Your task to perform on an android device: View the shopping cart on target.com. Image 0: 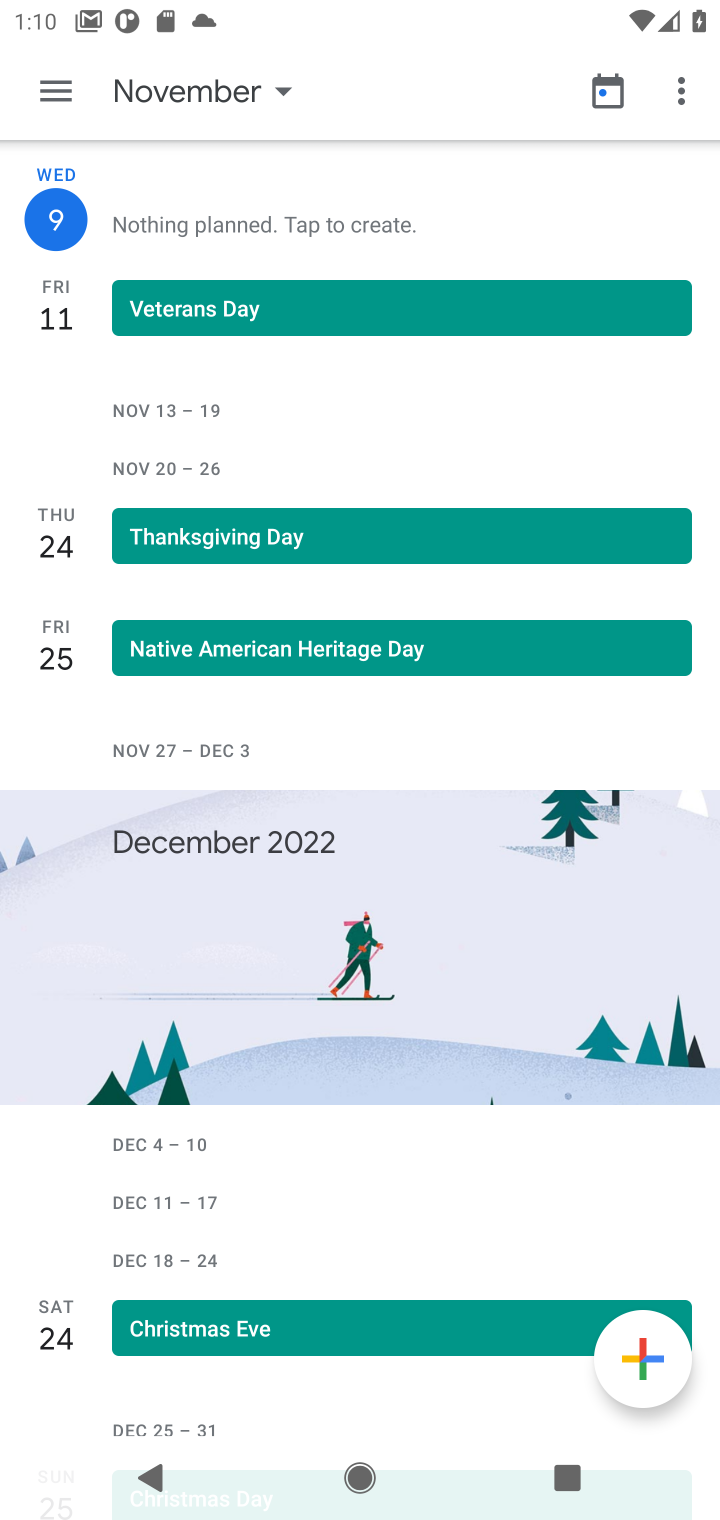
Step 0: press home button
Your task to perform on an android device: View the shopping cart on target.com. Image 1: 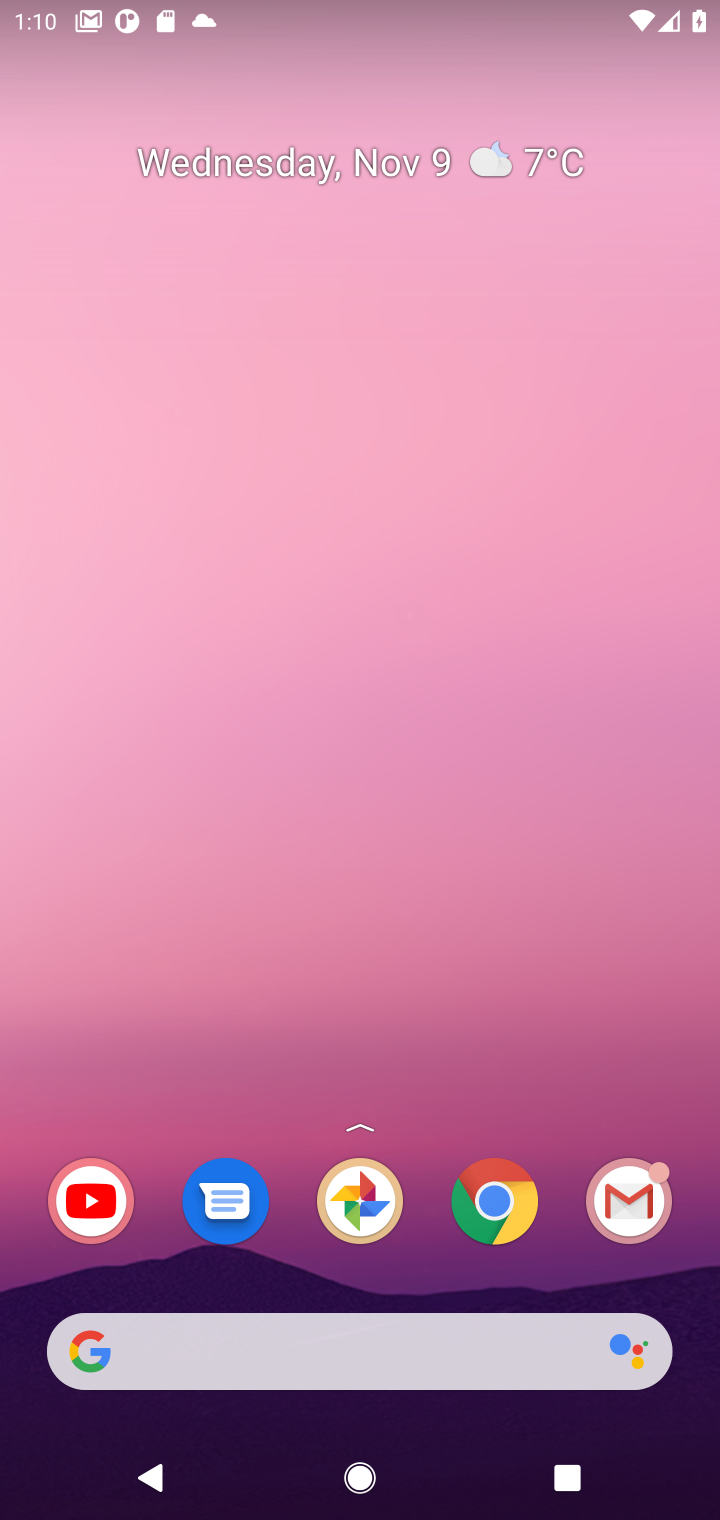
Step 1: click (471, 1356)
Your task to perform on an android device: View the shopping cart on target.com. Image 2: 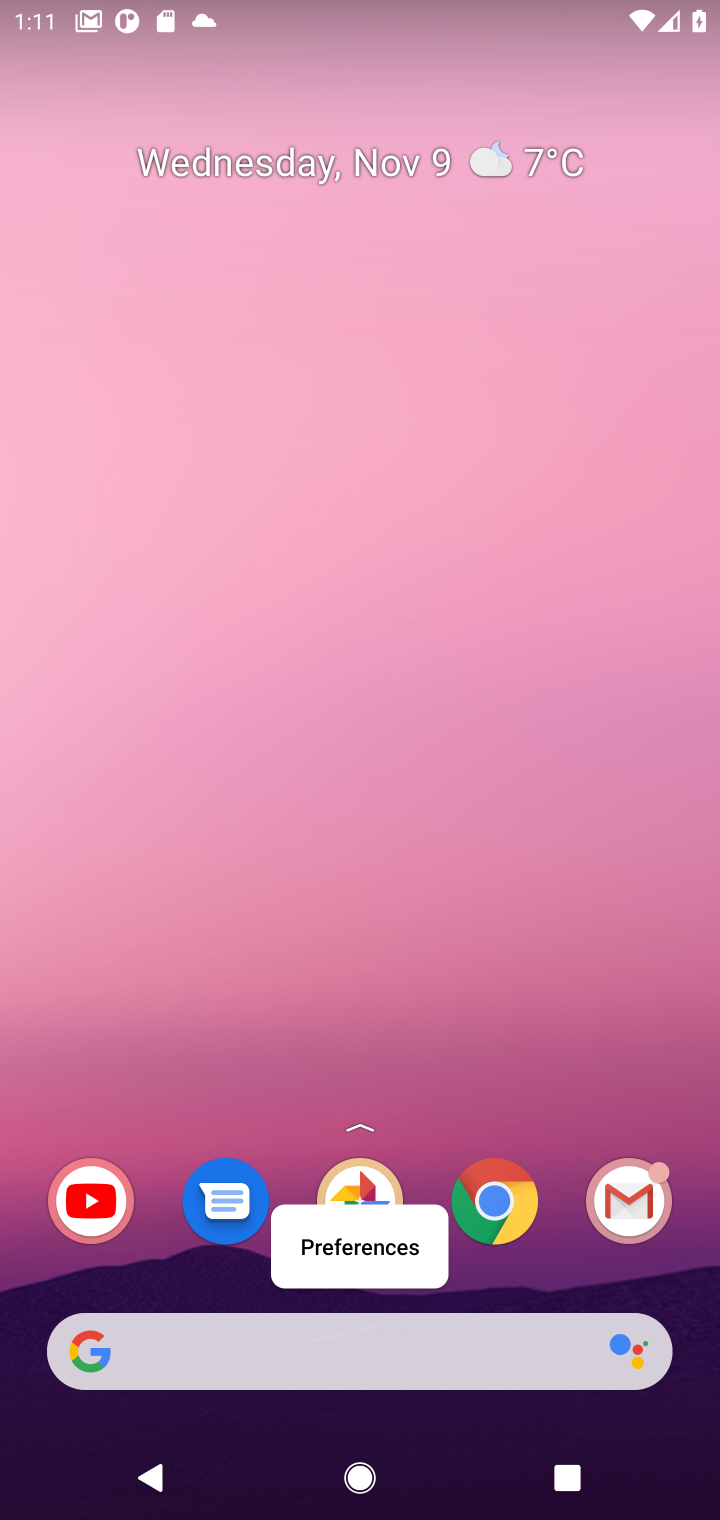
Step 2: click (376, 1356)
Your task to perform on an android device: View the shopping cart on target.com. Image 3: 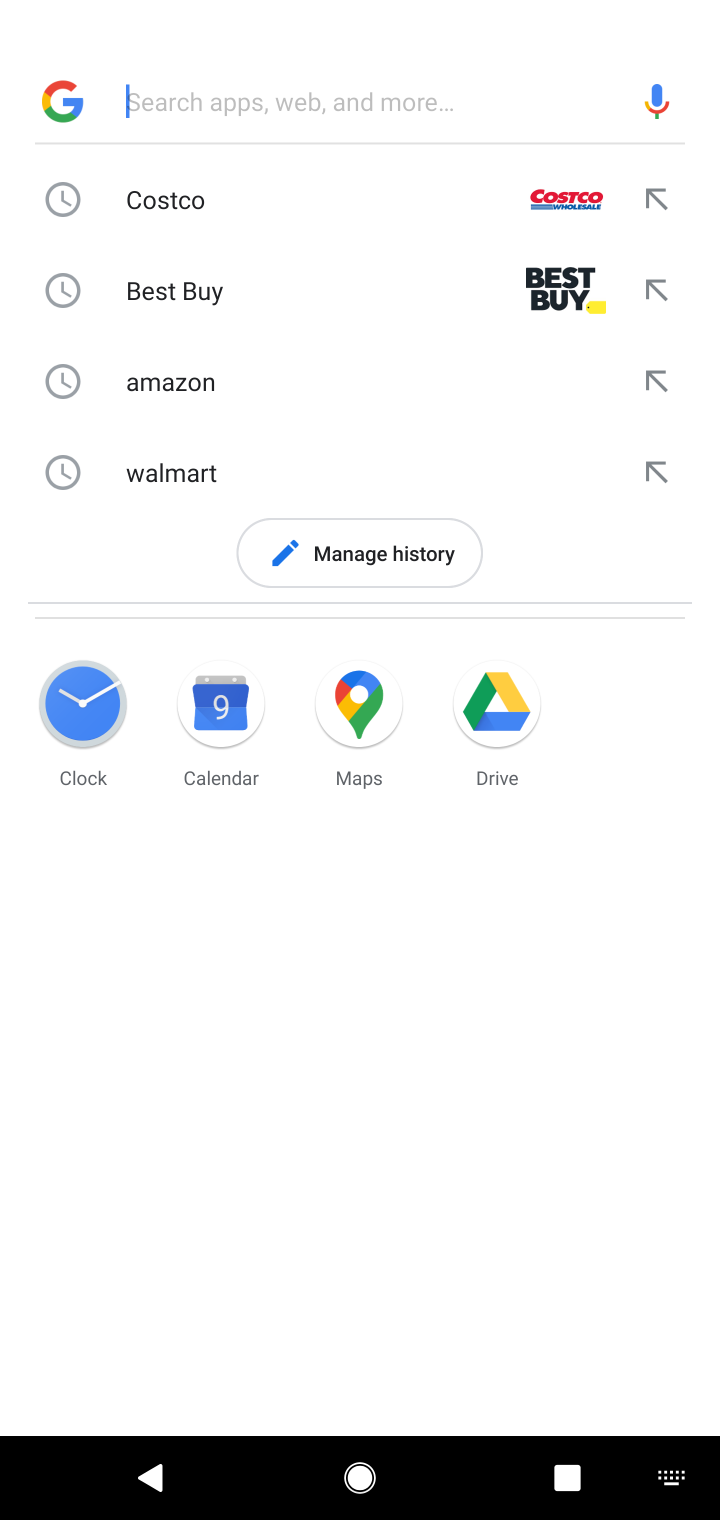
Step 3: type "target.com."
Your task to perform on an android device: View the shopping cart on target.com. Image 4: 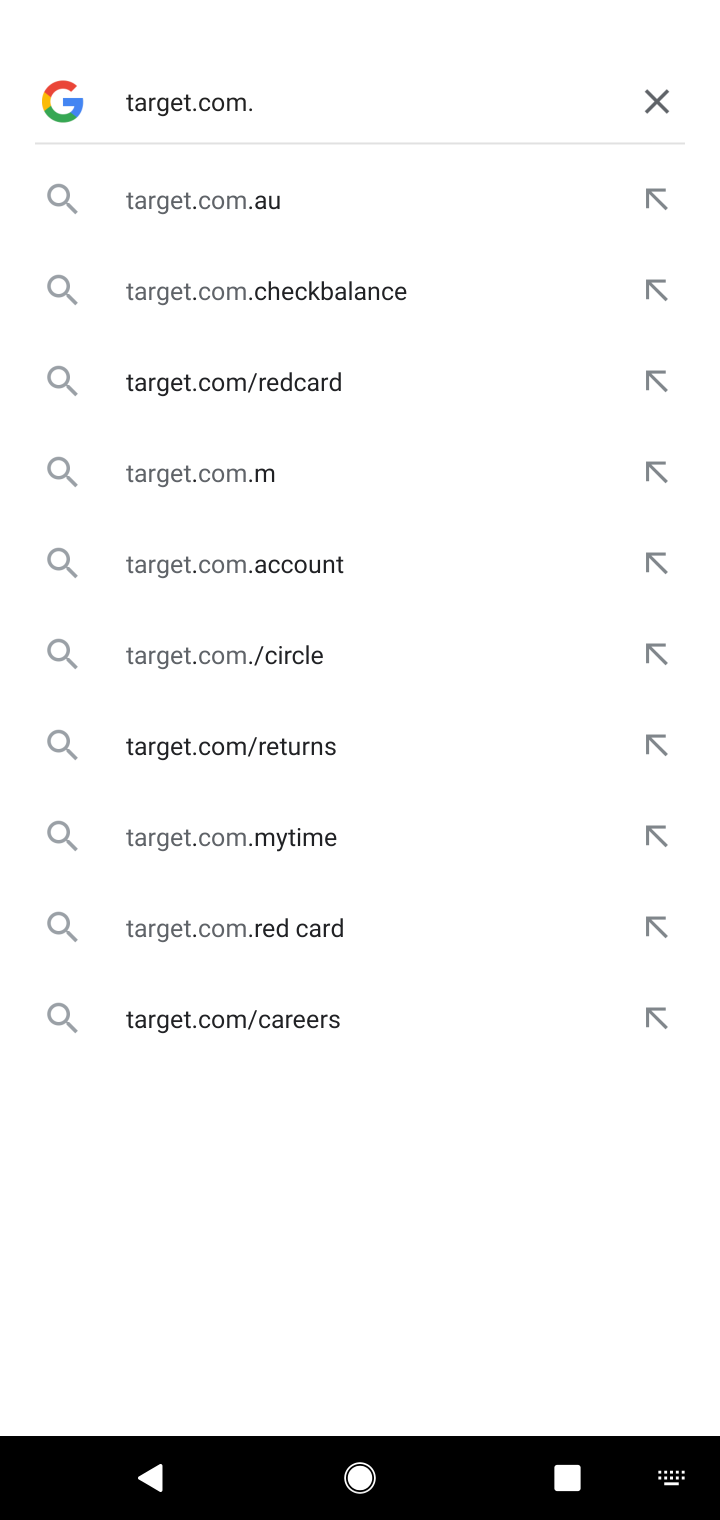
Step 4: click (201, 464)
Your task to perform on an android device: View the shopping cart on target.com. Image 5: 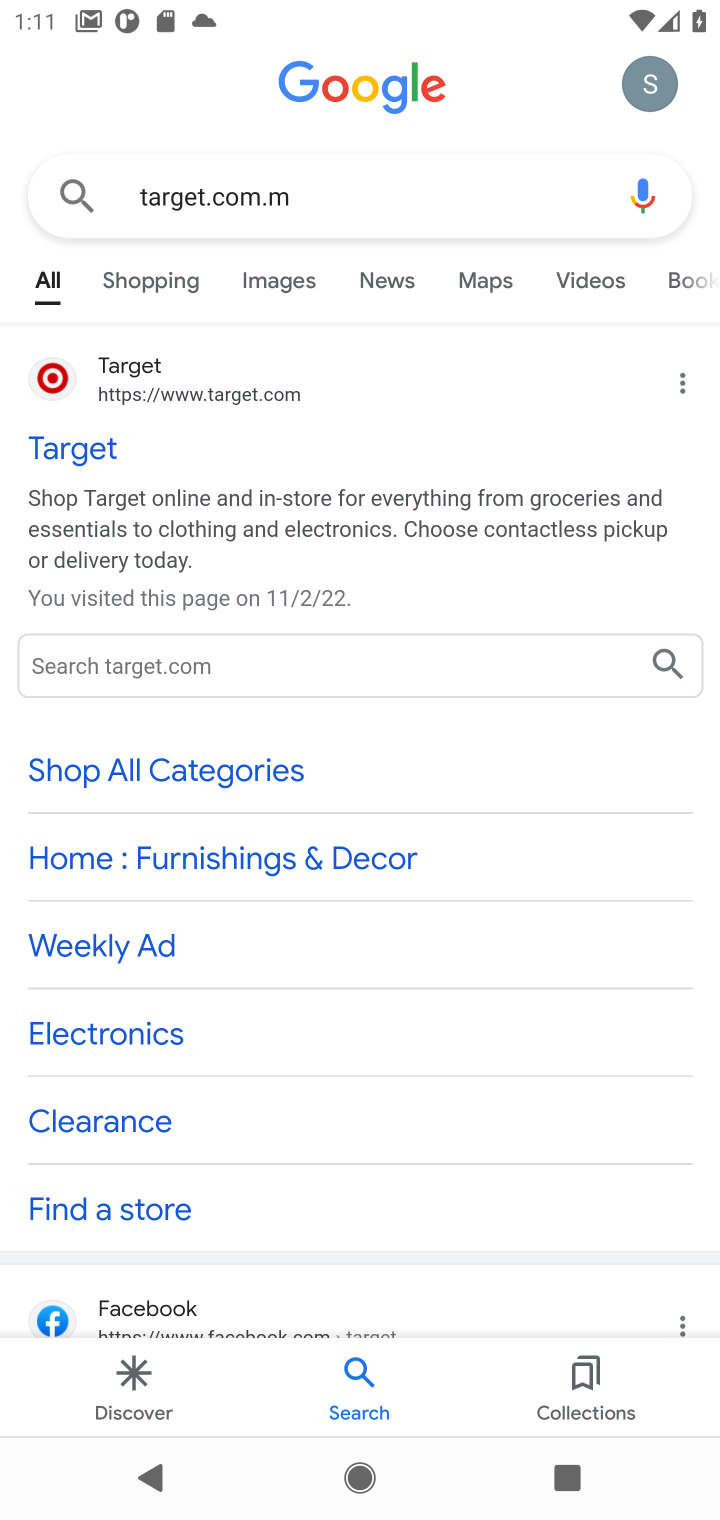
Step 5: click (130, 363)
Your task to perform on an android device: View the shopping cart on target.com. Image 6: 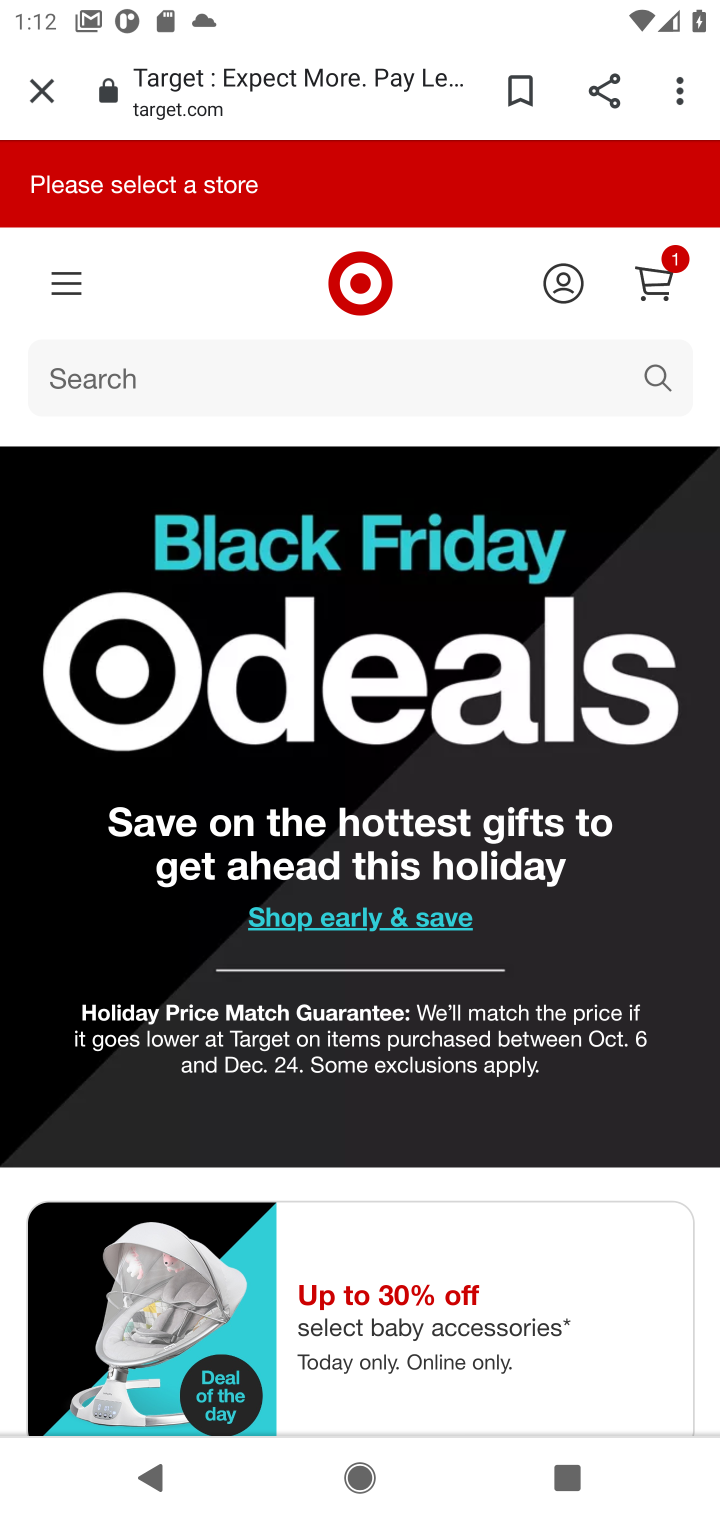
Step 6: click (654, 254)
Your task to perform on an android device: View the shopping cart on target.com. Image 7: 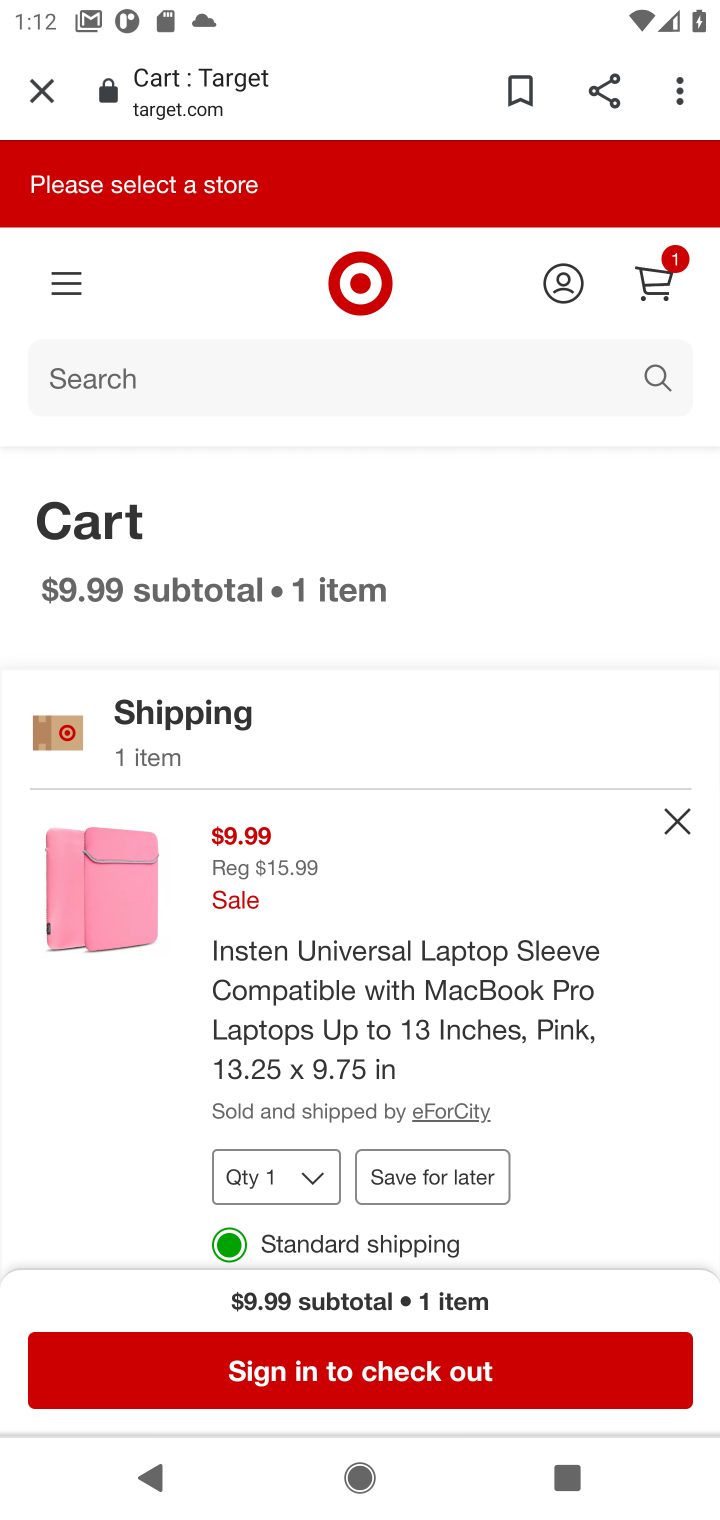
Step 7: click (654, 277)
Your task to perform on an android device: View the shopping cart on target.com. Image 8: 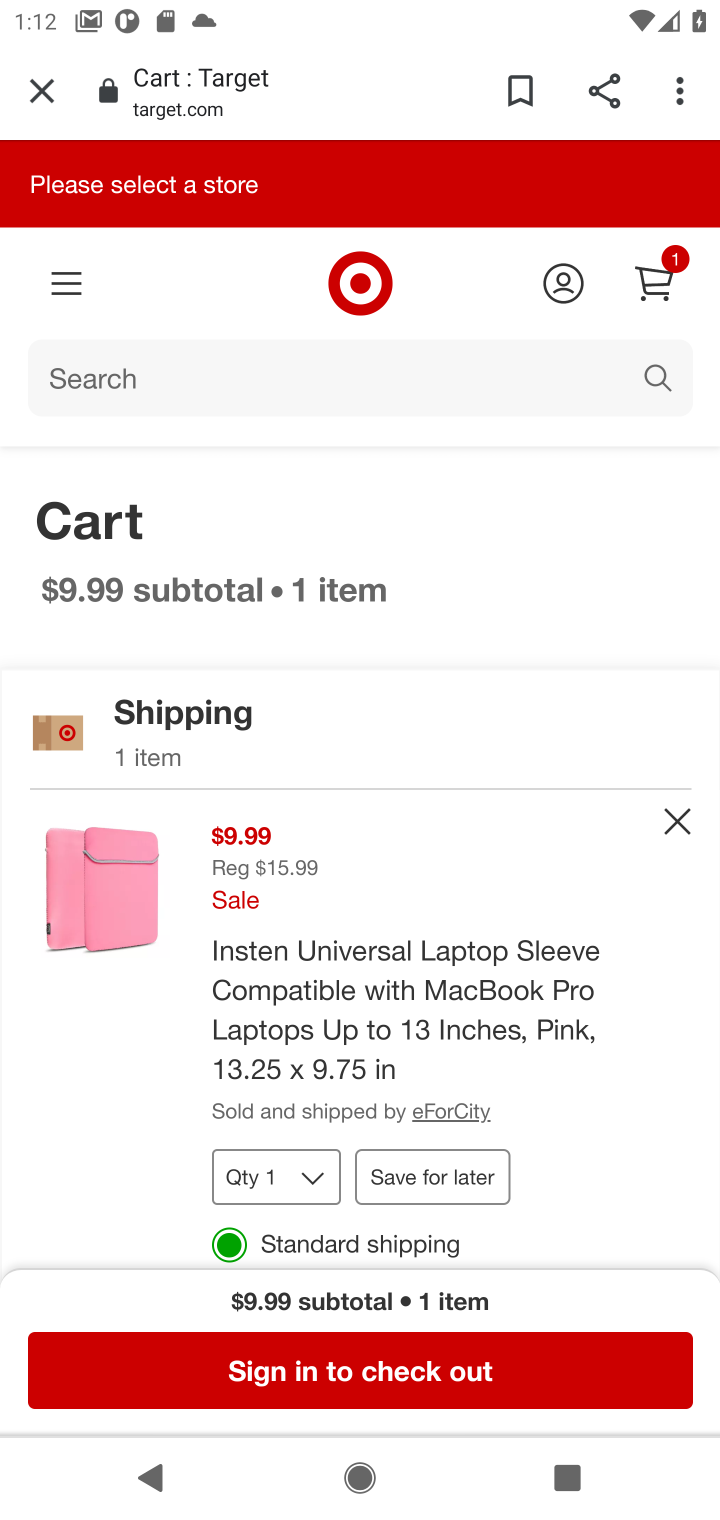
Step 8: task complete